Your task to perform on an android device: turn off picture-in-picture Image 0: 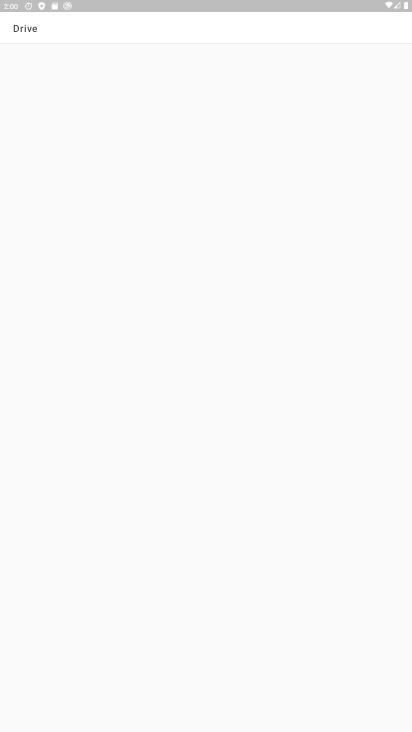
Step 0: click (60, 711)
Your task to perform on an android device: turn off picture-in-picture Image 1: 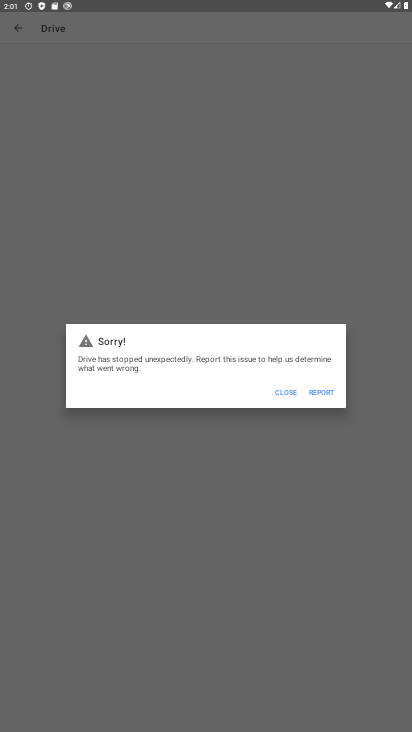
Step 1: click (287, 388)
Your task to perform on an android device: turn off picture-in-picture Image 2: 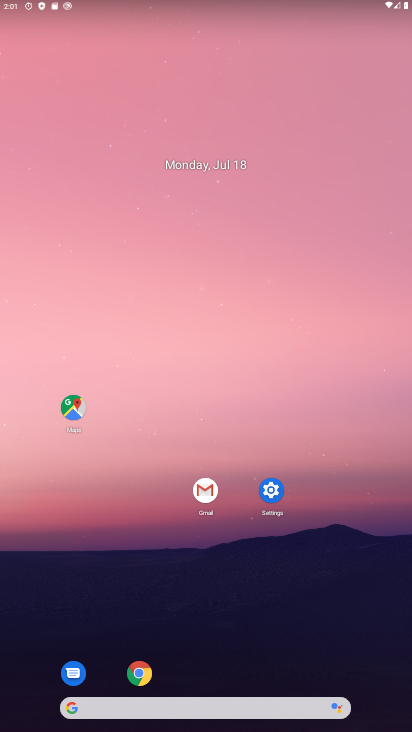
Step 2: drag from (197, 716) to (88, 53)
Your task to perform on an android device: turn off picture-in-picture Image 3: 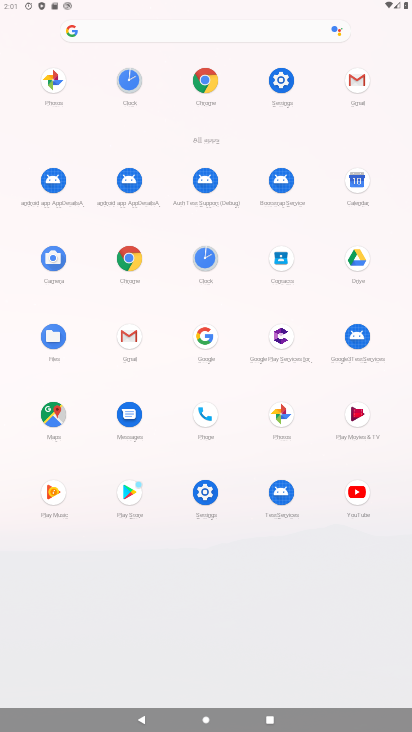
Step 3: click (351, 493)
Your task to perform on an android device: turn off picture-in-picture Image 4: 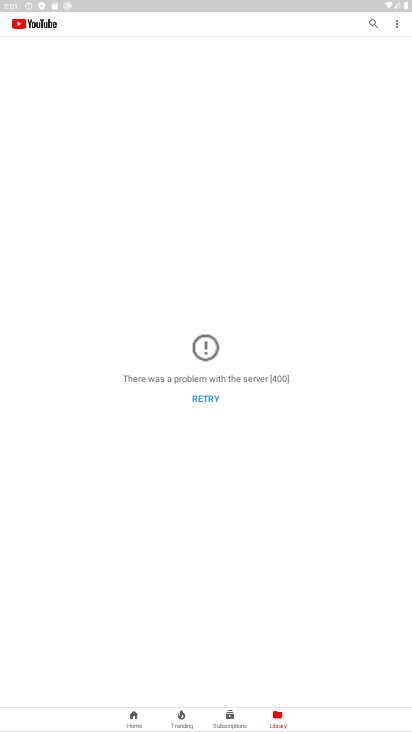
Step 4: click (394, 28)
Your task to perform on an android device: turn off picture-in-picture Image 5: 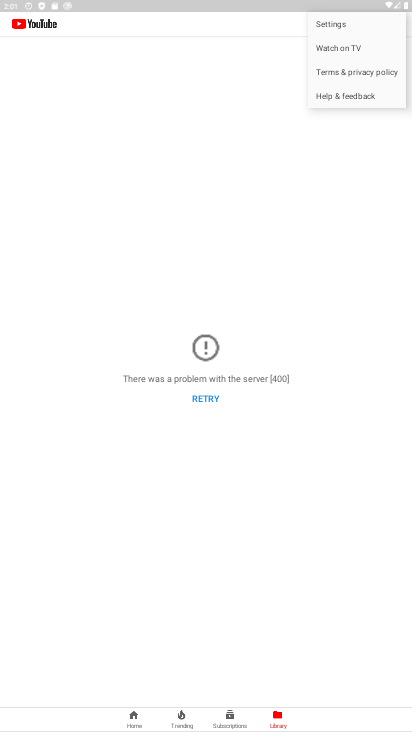
Step 5: click (338, 21)
Your task to perform on an android device: turn off picture-in-picture Image 6: 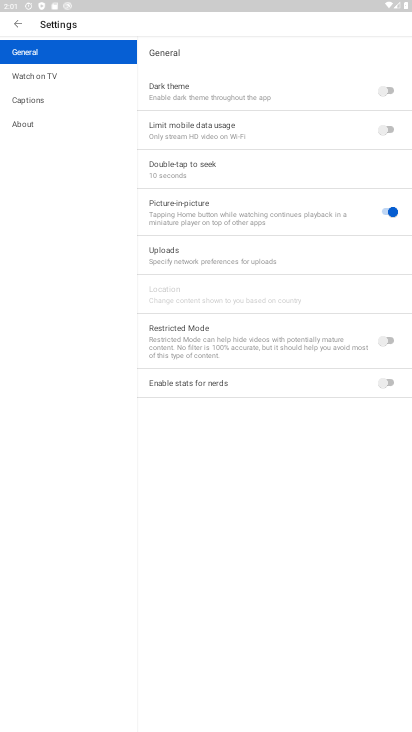
Step 6: click (230, 221)
Your task to perform on an android device: turn off picture-in-picture Image 7: 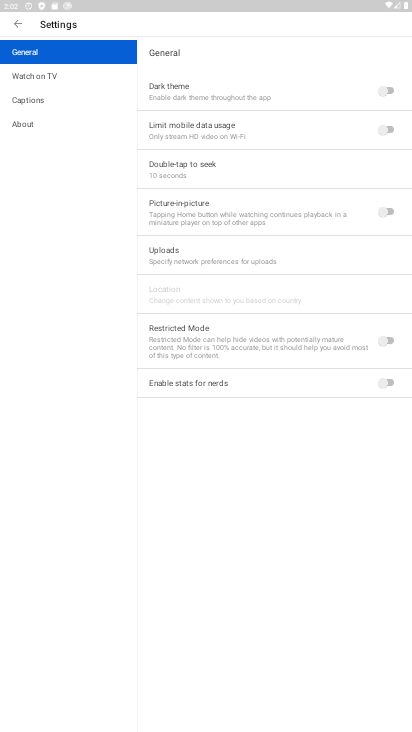
Step 7: task complete